Your task to perform on an android device: open app "Paramount+ | Peak Streaming" Image 0: 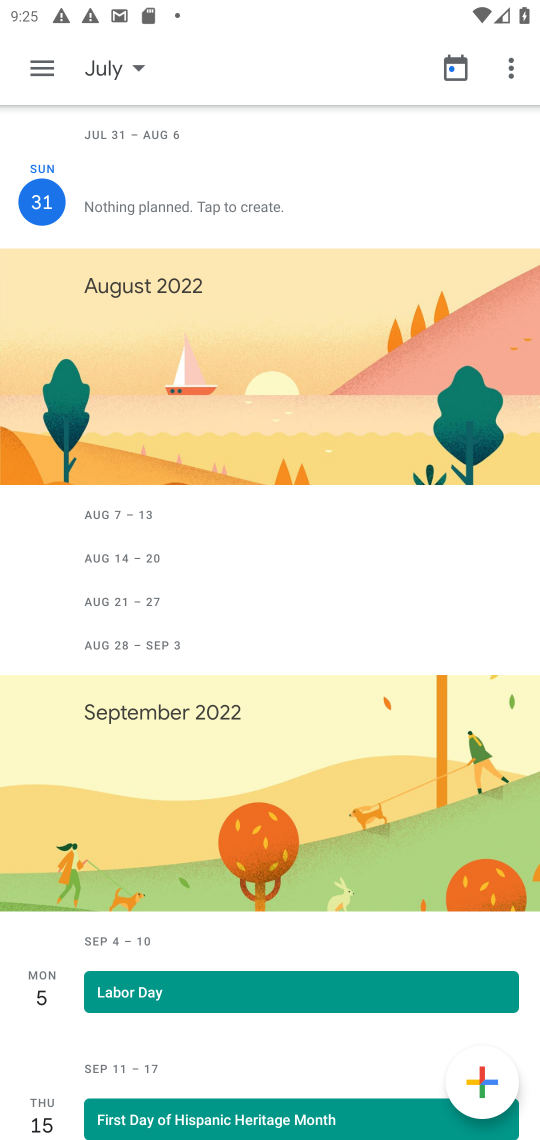
Step 0: press home button
Your task to perform on an android device: open app "Paramount+ | Peak Streaming" Image 1: 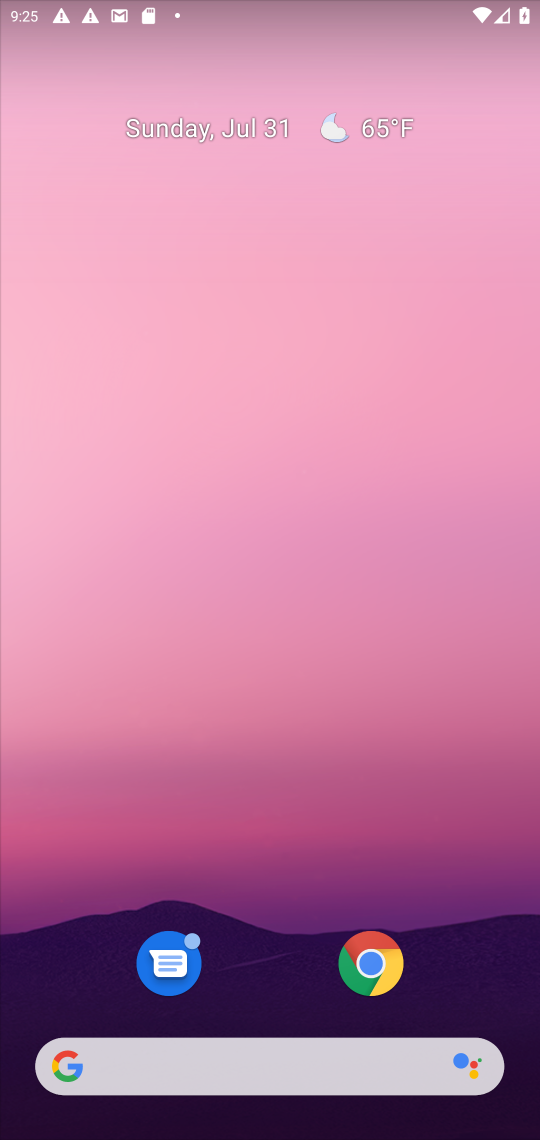
Step 1: drag from (272, 992) to (208, 705)
Your task to perform on an android device: open app "Paramount+ | Peak Streaming" Image 2: 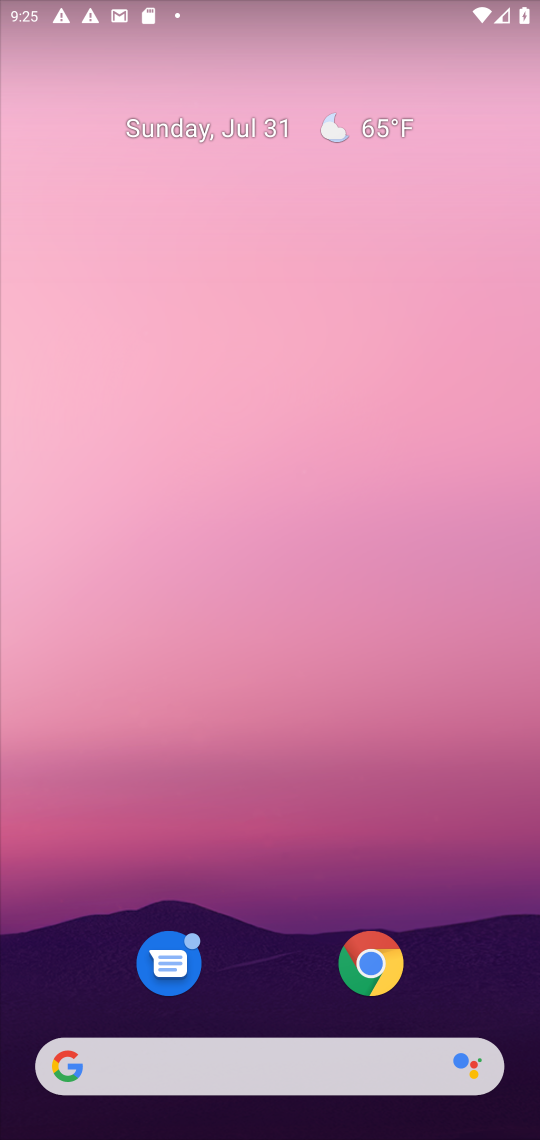
Step 2: drag from (278, 953) to (110, 28)
Your task to perform on an android device: open app "Paramount+ | Peak Streaming" Image 3: 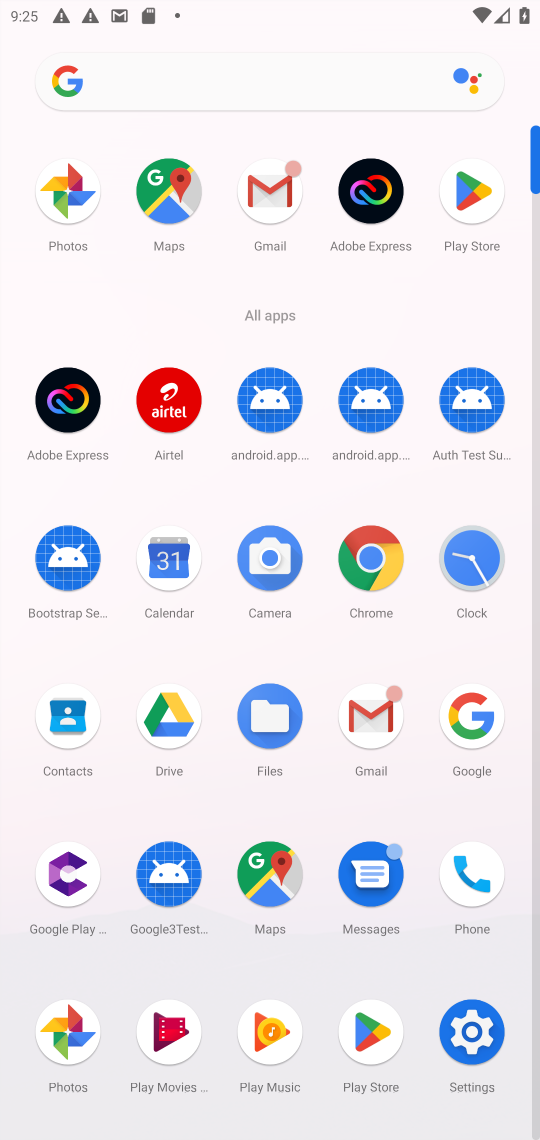
Step 3: click (480, 203)
Your task to perform on an android device: open app "Paramount+ | Peak Streaming" Image 4: 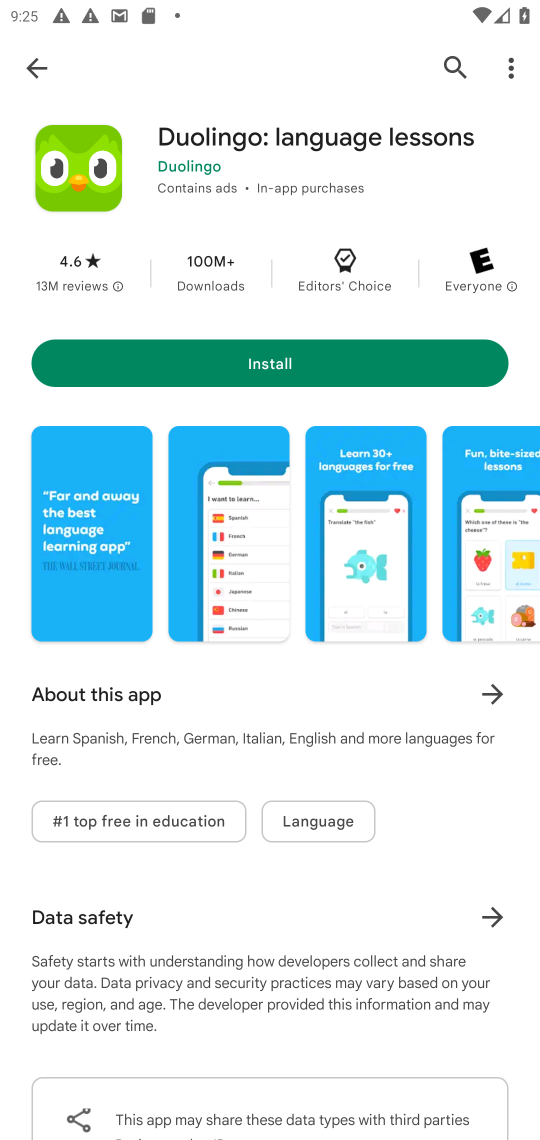
Step 4: click (439, 46)
Your task to perform on an android device: open app "Paramount+ | Peak Streaming" Image 5: 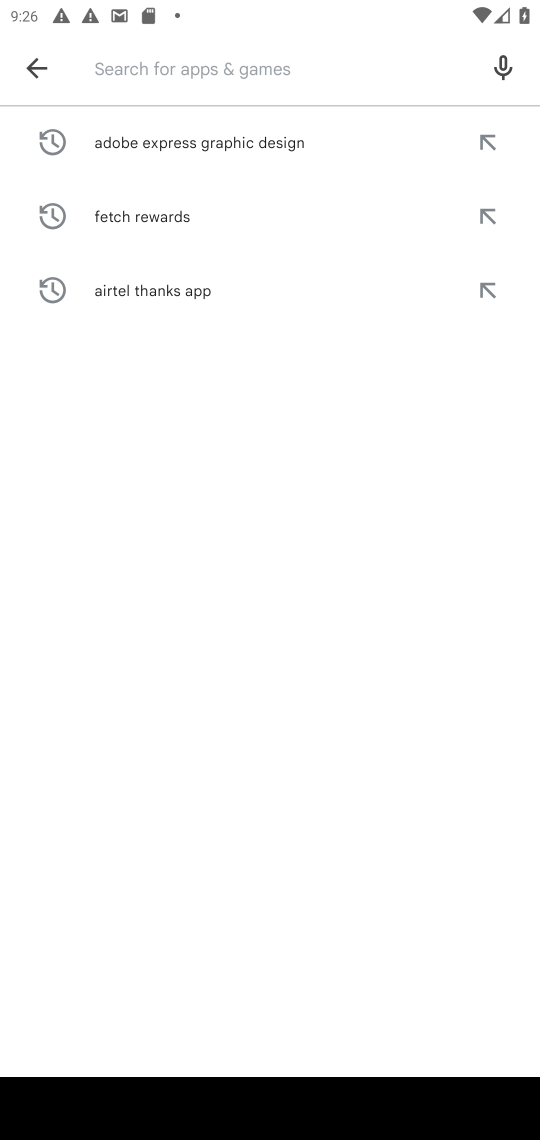
Step 5: type "paramount+ peak streaming"
Your task to perform on an android device: open app "Paramount+ | Peak Streaming" Image 6: 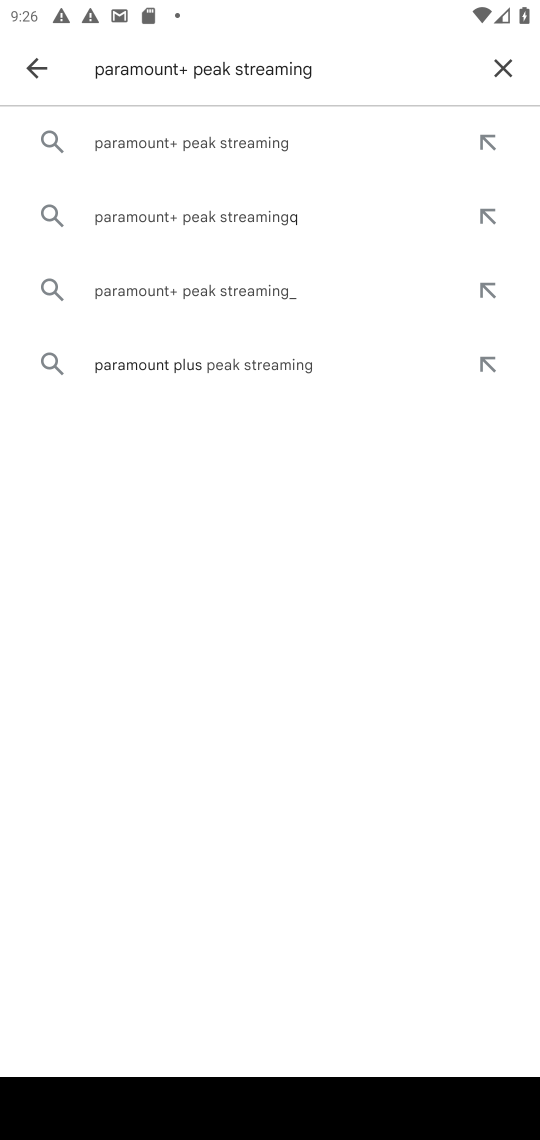
Step 6: click (297, 130)
Your task to perform on an android device: open app "Paramount+ | Peak Streaming" Image 7: 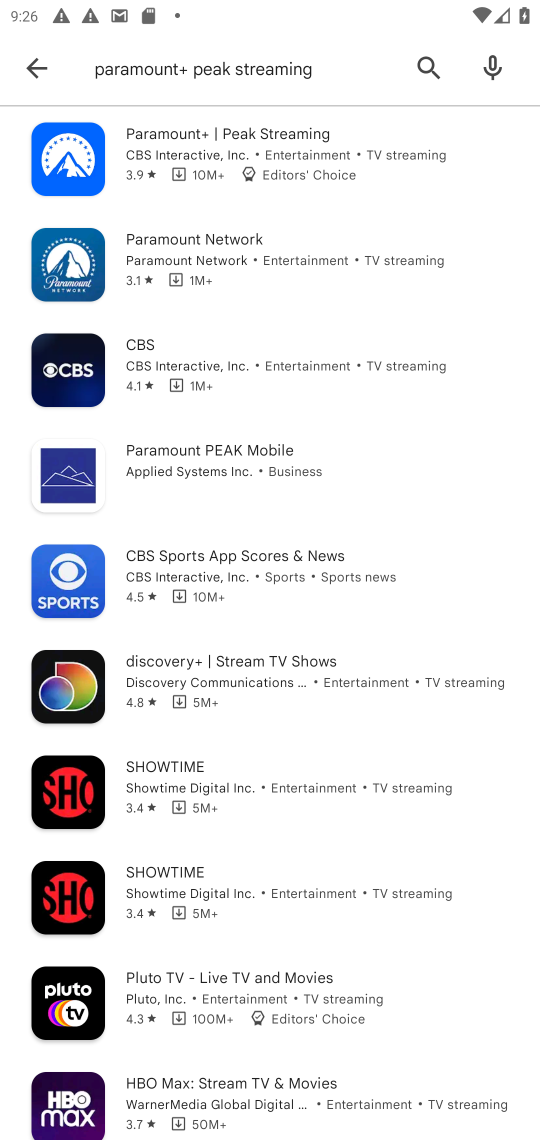
Step 7: click (304, 161)
Your task to perform on an android device: open app "Paramount+ | Peak Streaming" Image 8: 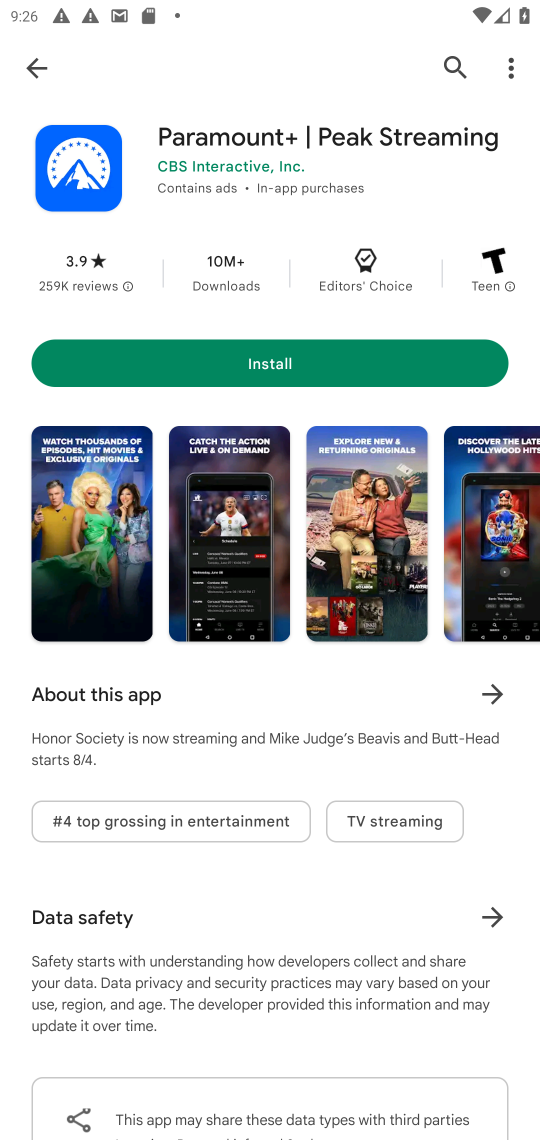
Step 8: task complete